Your task to perform on an android device: open app "Mercado Libre" Image 0: 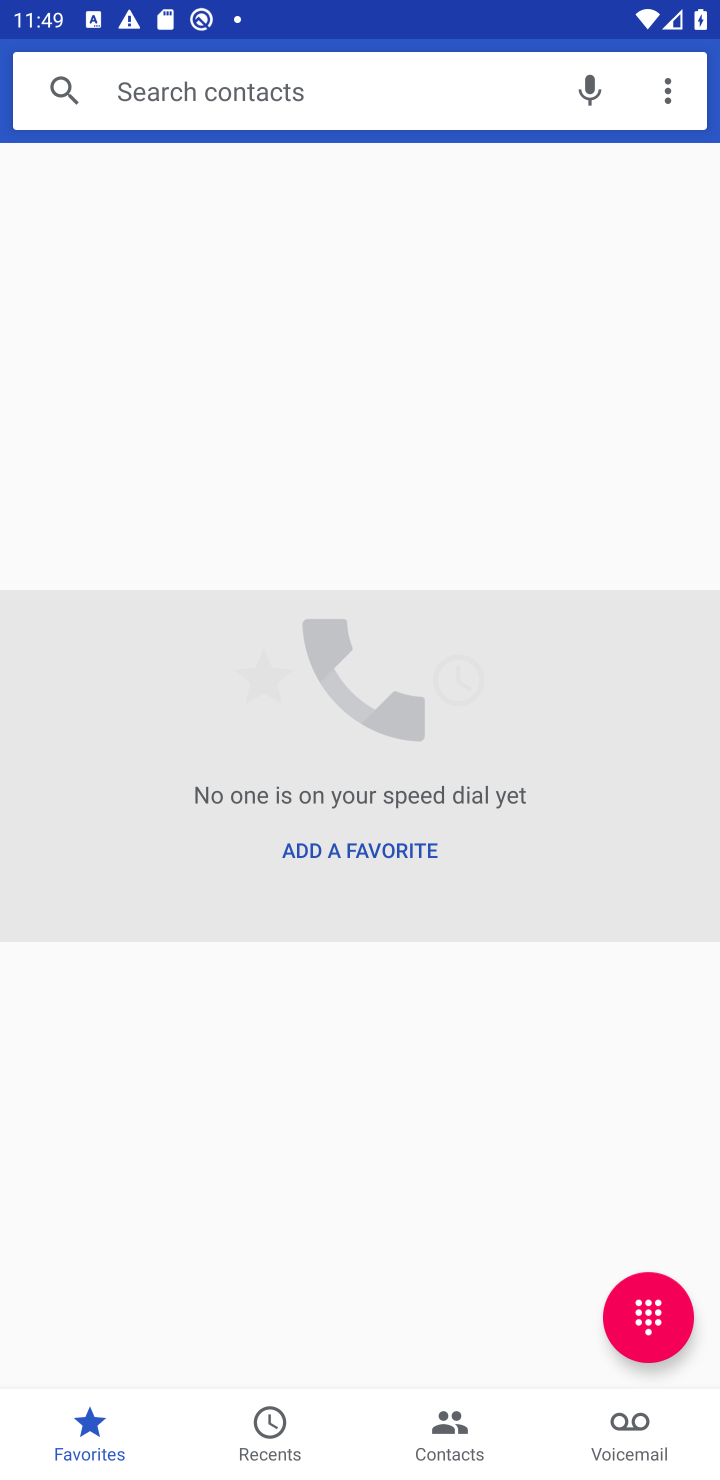
Step 0: press home button
Your task to perform on an android device: open app "Mercado Libre" Image 1: 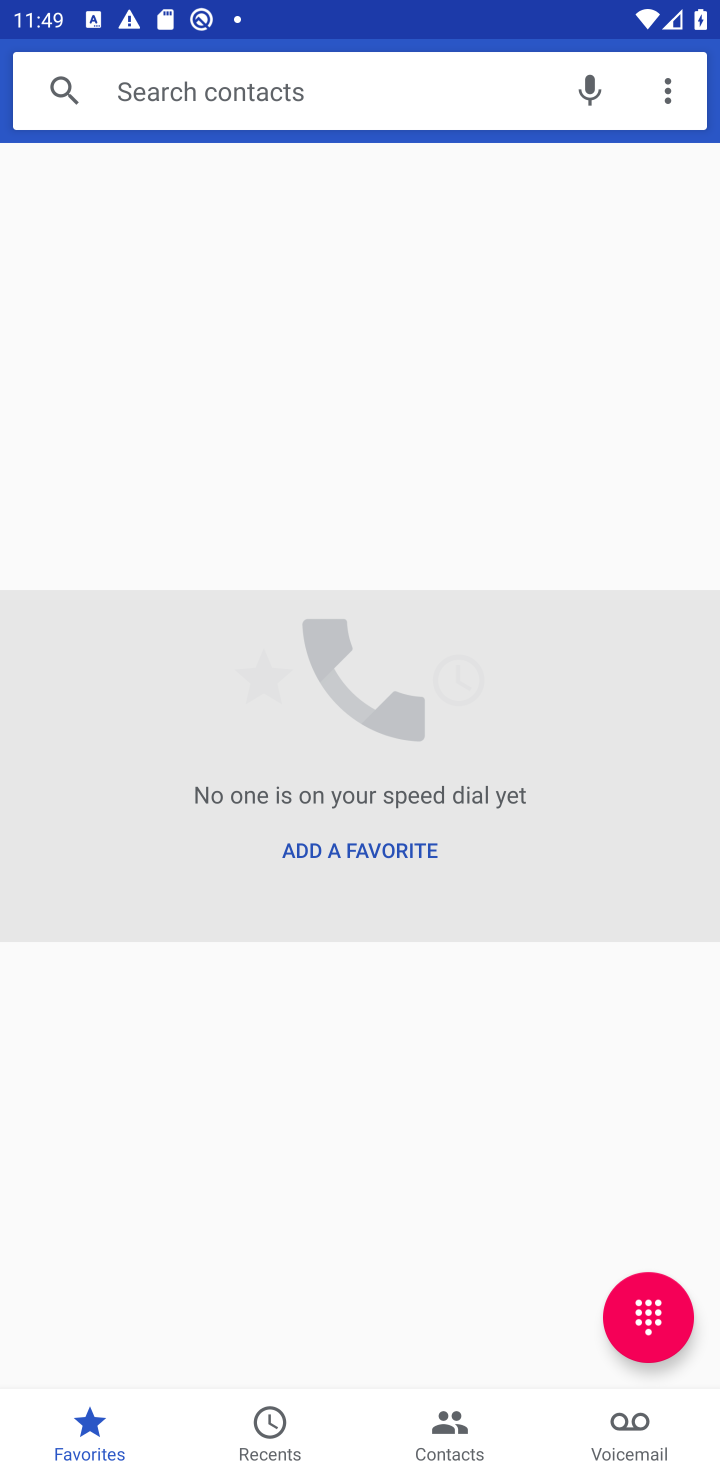
Step 1: press home button
Your task to perform on an android device: open app "Mercado Libre" Image 2: 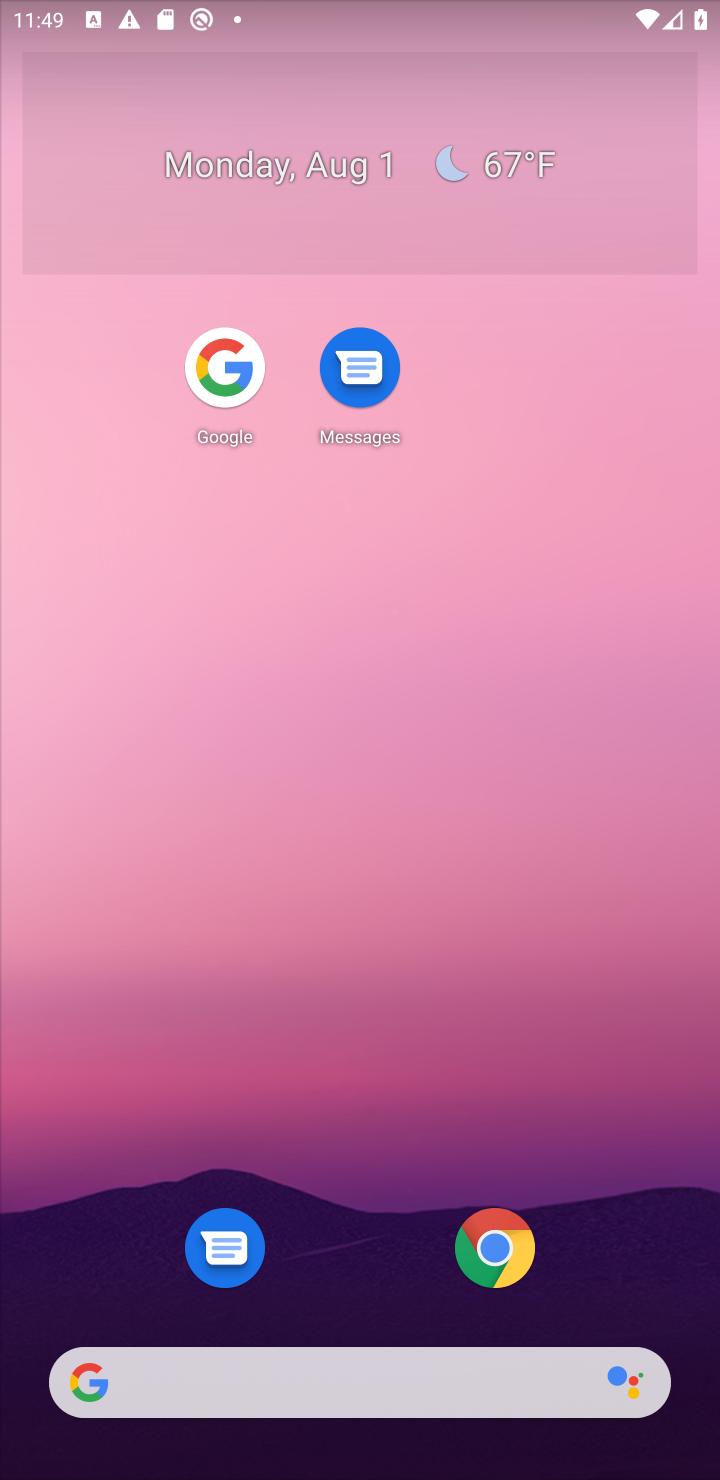
Step 2: drag from (582, 1064) to (583, 94)
Your task to perform on an android device: open app "Mercado Libre" Image 3: 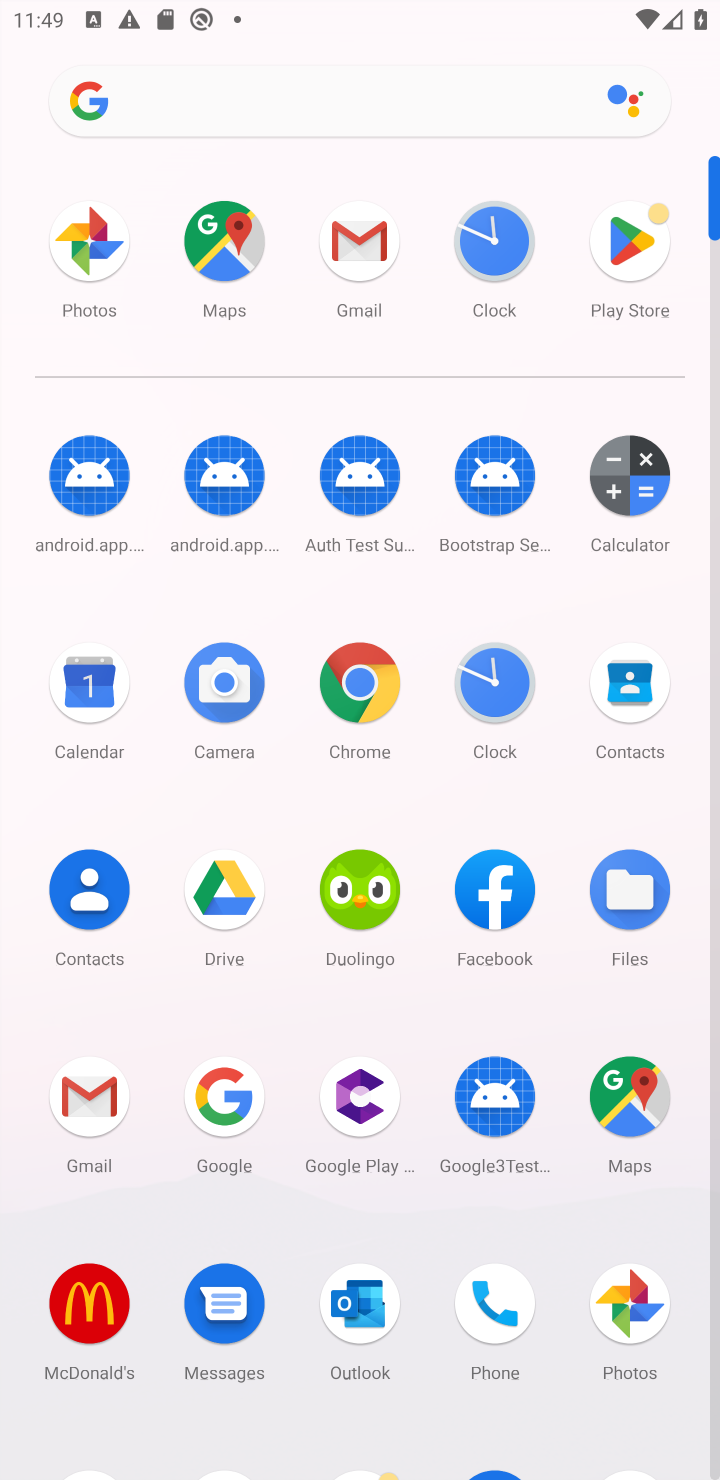
Step 3: drag from (433, 1223) to (420, 501)
Your task to perform on an android device: open app "Mercado Libre" Image 4: 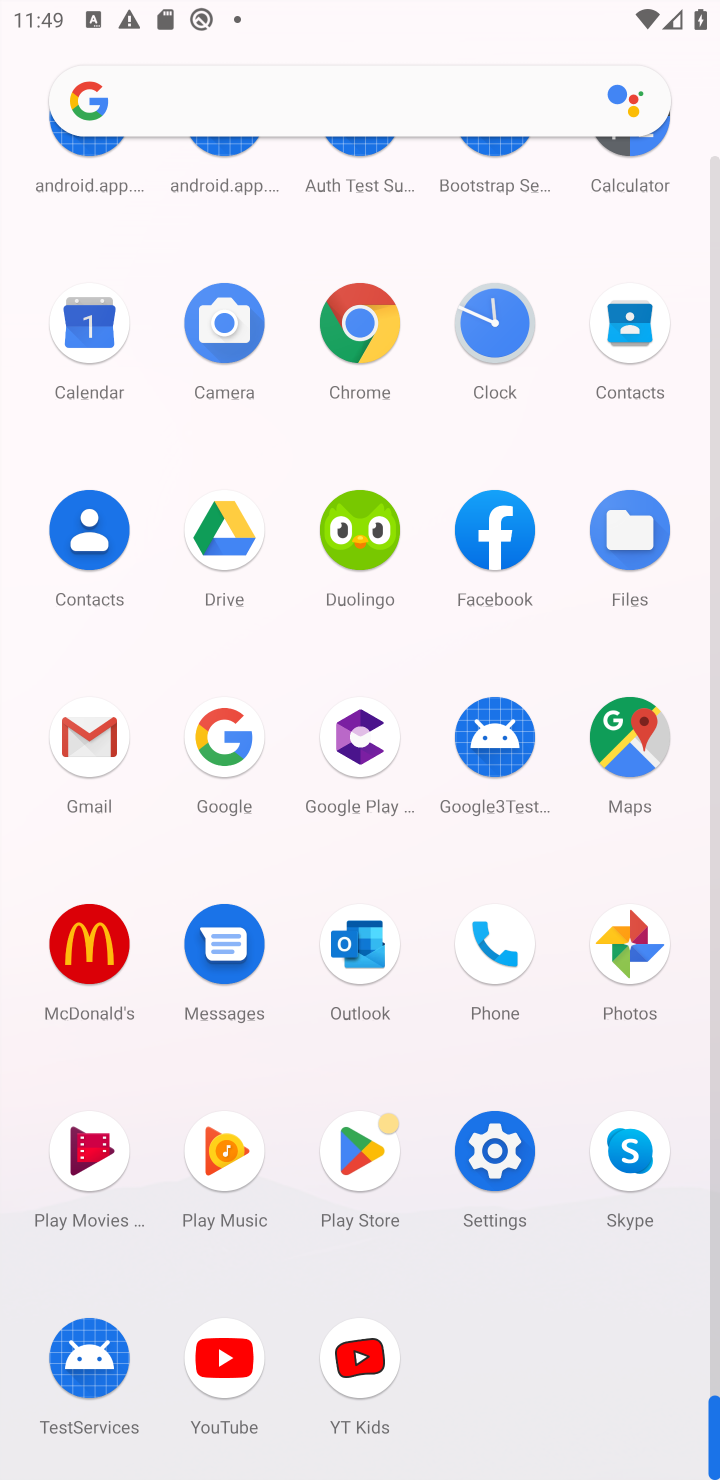
Step 4: click (350, 1147)
Your task to perform on an android device: open app "Mercado Libre" Image 5: 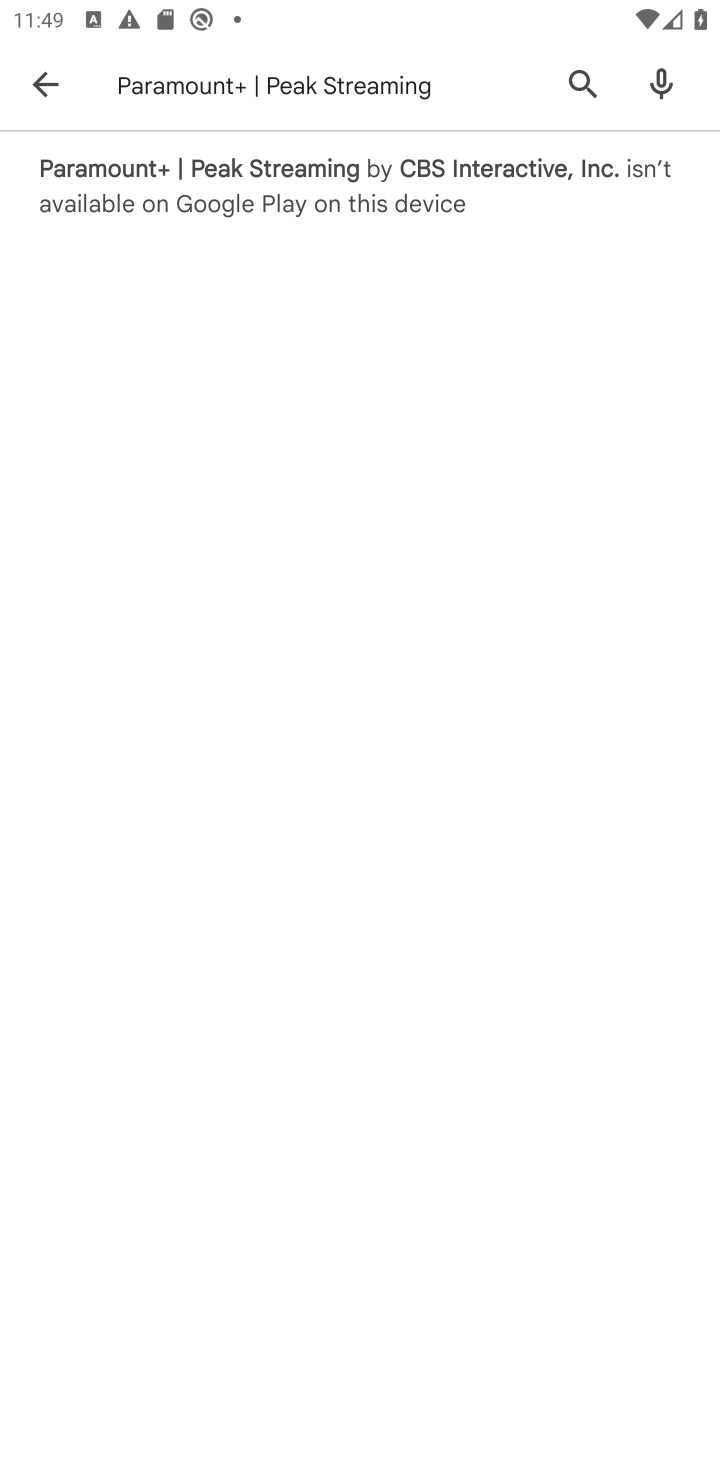
Step 5: click (493, 86)
Your task to perform on an android device: open app "Mercado Libre" Image 6: 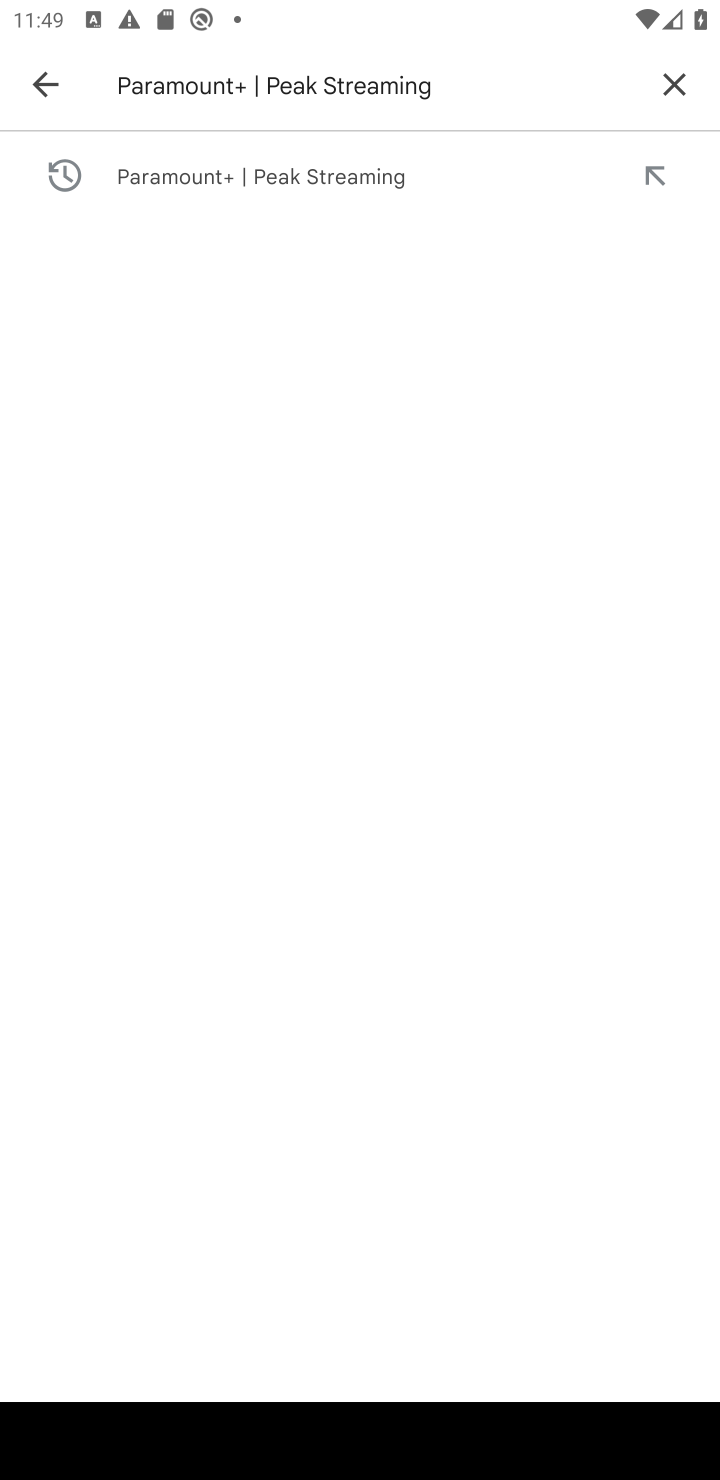
Step 6: click (670, 82)
Your task to perform on an android device: open app "Mercado Libre" Image 7: 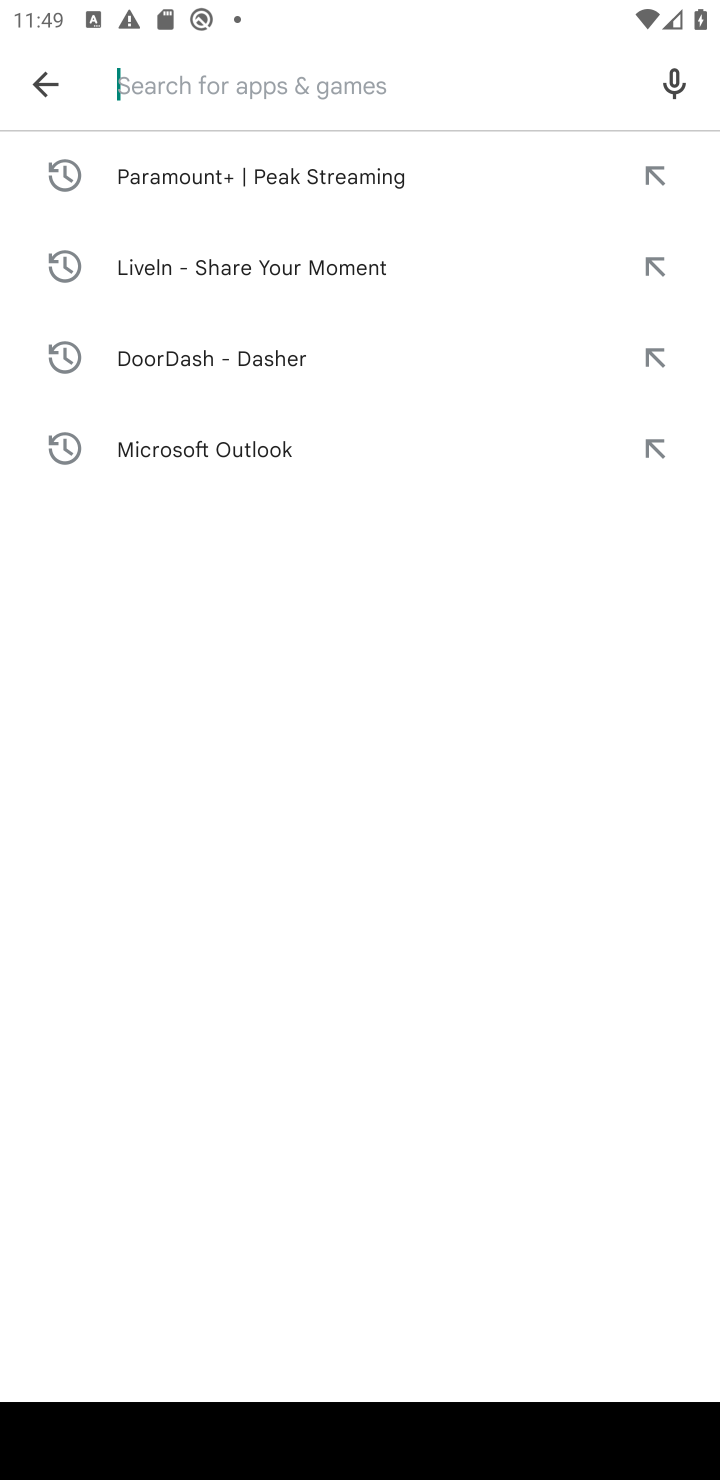
Step 7: type "Mercado Libre"
Your task to perform on an android device: open app "Mercado Libre" Image 8: 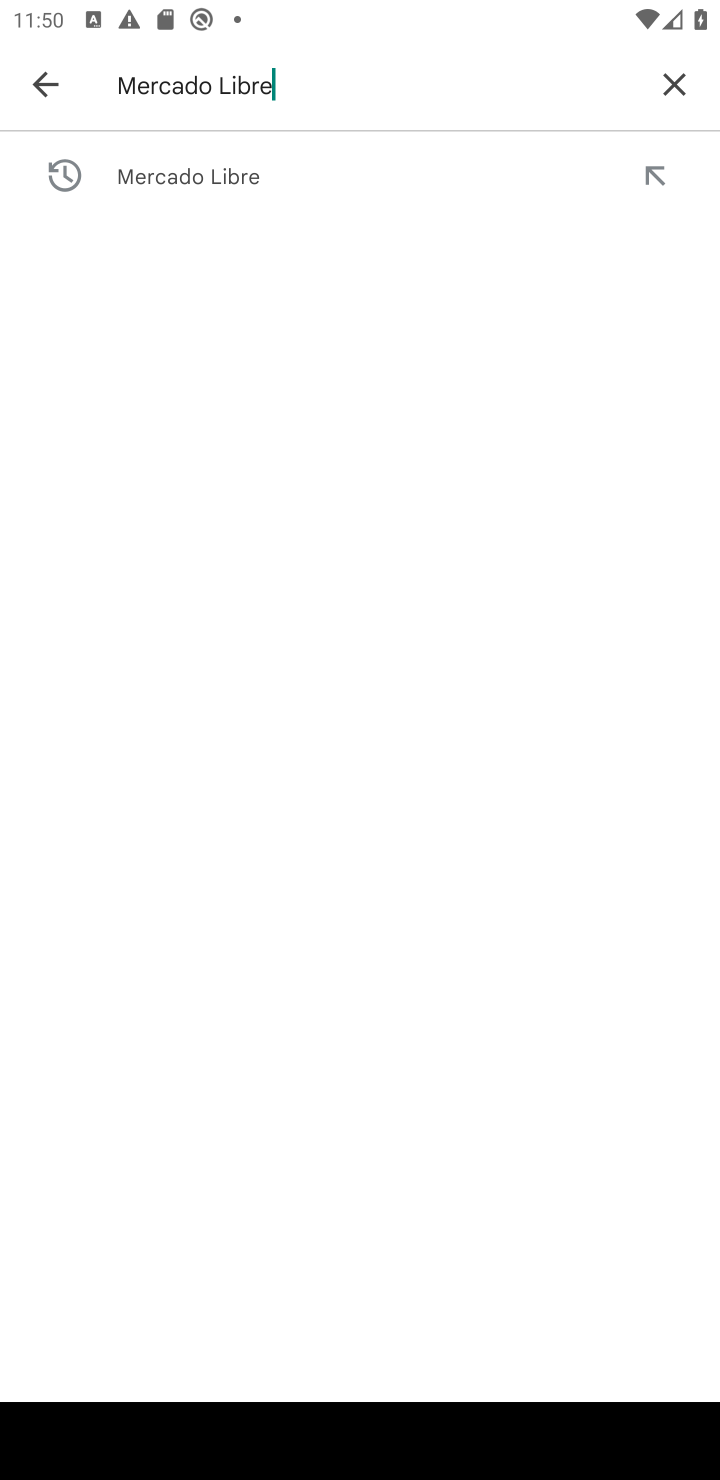
Step 8: press enter
Your task to perform on an android device: open app "Mercado Libre" Image 9: 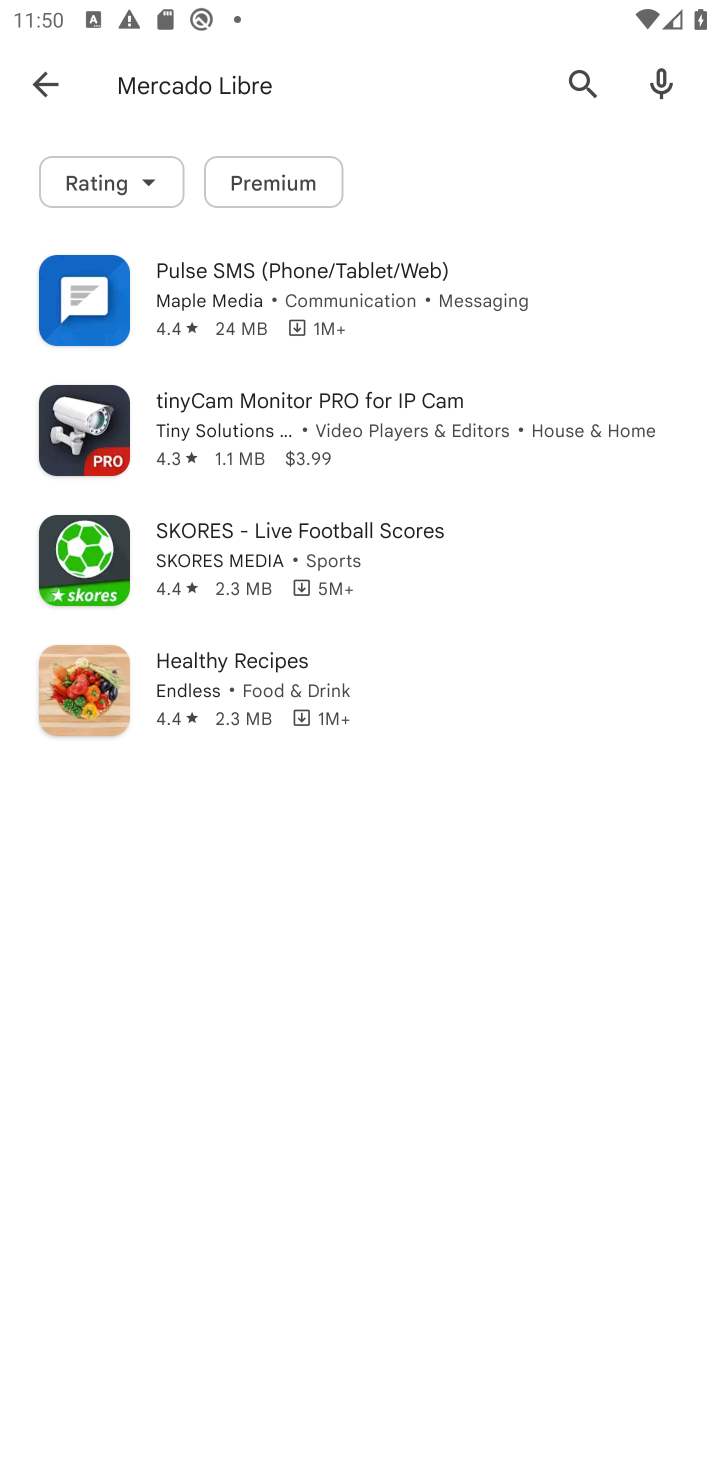
Step 9: task complete